Your task to perform on an android device: see sites visited before in the chrome app Image 0: 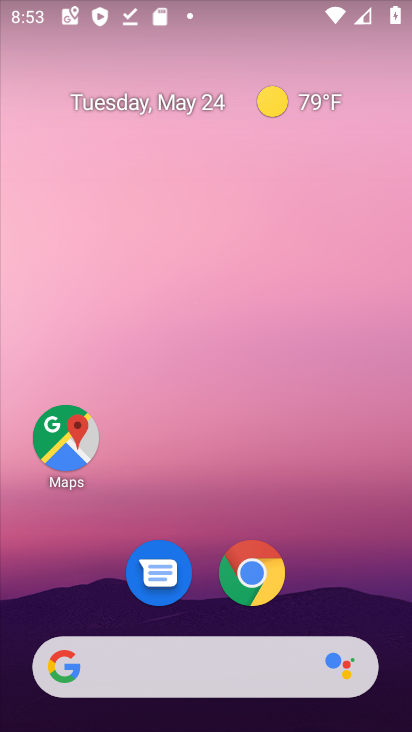
Step 0: drag from (389, 681) to (228, 157)
Your task to perform on an android device: see sites visited before in the chrome app Image 1: 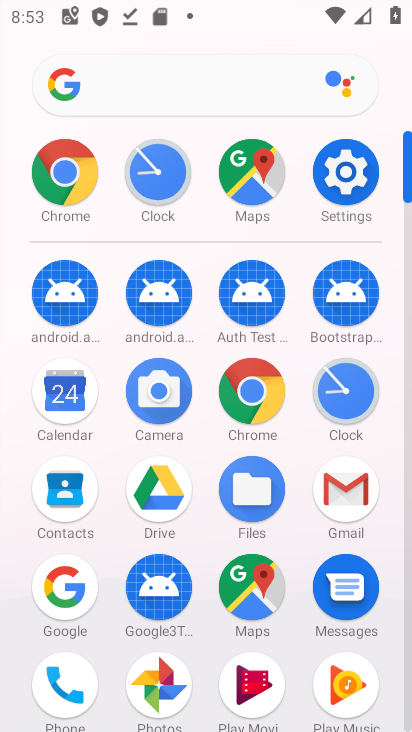
Step 1: click (52, 174)
Your task to perform on an android device: see sites visited before in the chrome app Image 2: 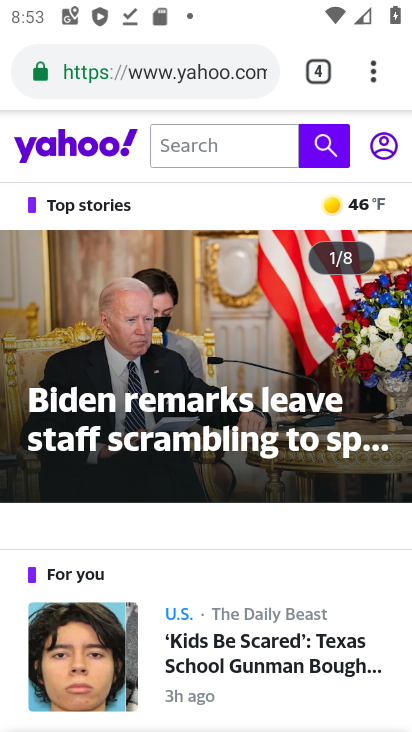
Step 2: drag from (372, 76) to (124, 350)
Your task to perform on an android device: see sites visited before in the chrome app Image 3: 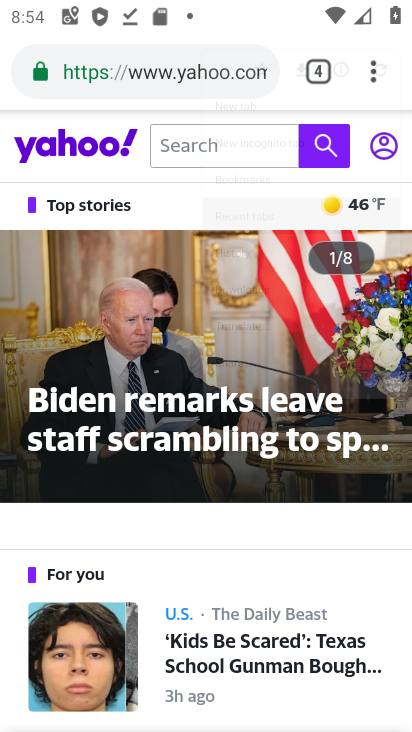
Step 3: click (133, 343)
Your task to perform on an android device: see sites visited before in the chrome app Image 4: 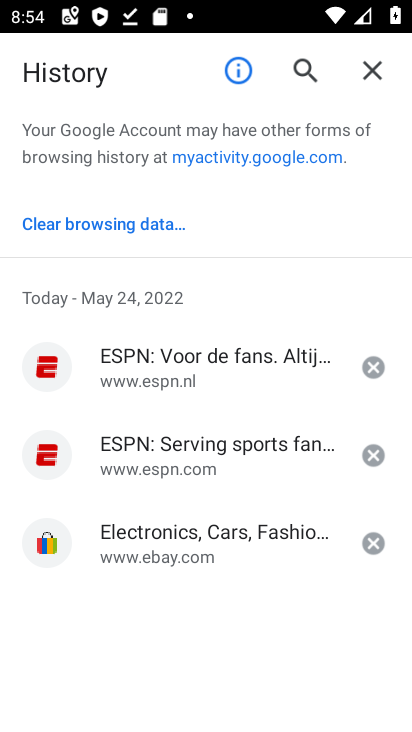
Step 4: task complete